Your task to perform on an android device: see sites visited before in the chrome app Image 0: 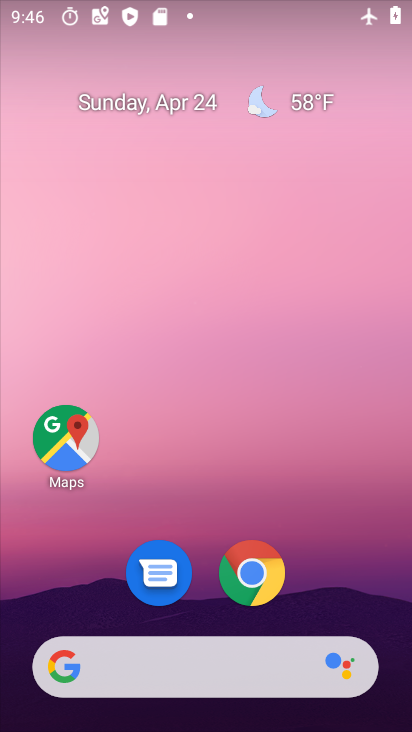
Step 0: drag from (308, 565) to (278, 169)
Your task to perform on an android device: see sites visited before in the chrome app Image 1: 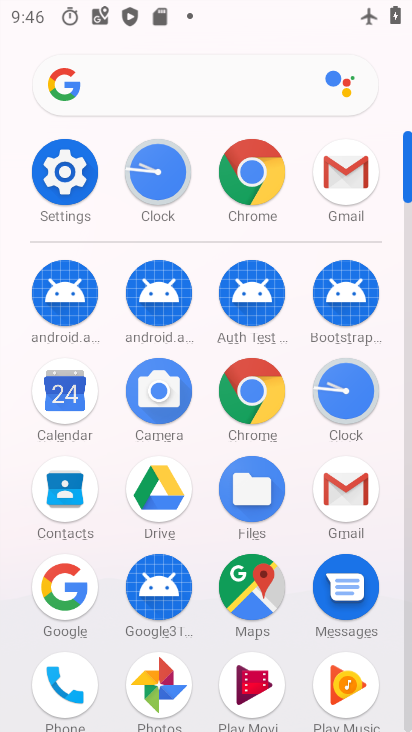
Step 1: click (247, 387)
Your task to perform on an android device: see sites visited before in the chrome app Image 2: 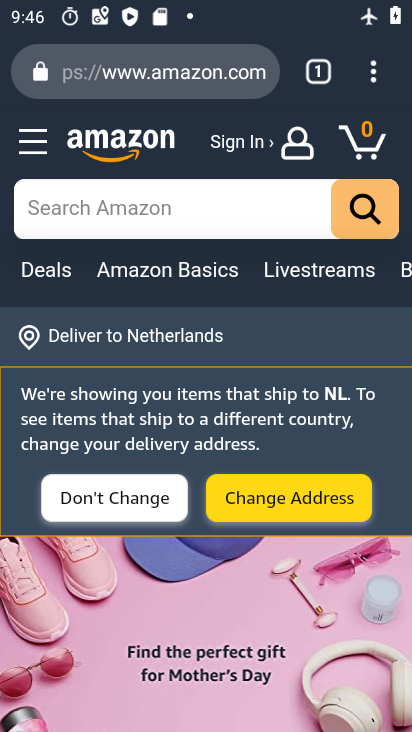
Step 2: click (376, 66)
Your task to perform on an android device: see sites visited before in the chrome app Image 3: 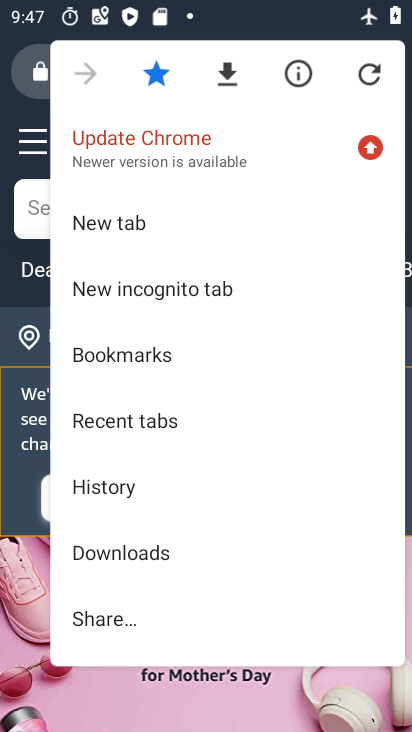
Step 3: drag from (116, 621) to (162, 243)
Your task to perform on an android device: see sites visited before in the chrome app Image 4: 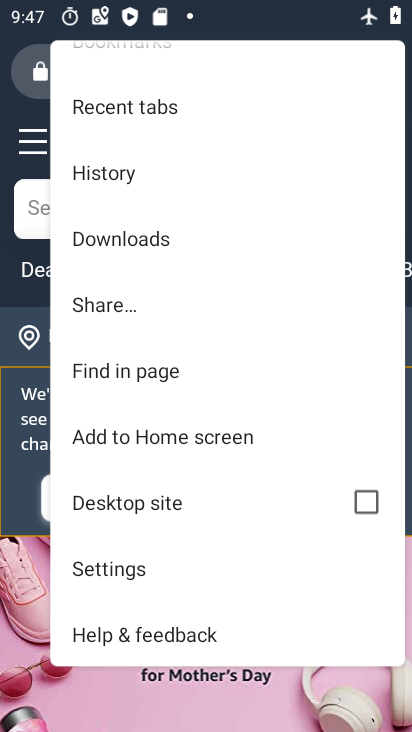
Step 4: click (136, 162)
Your task to perform on an android device: see sites visited before in the chrome app Image 5: 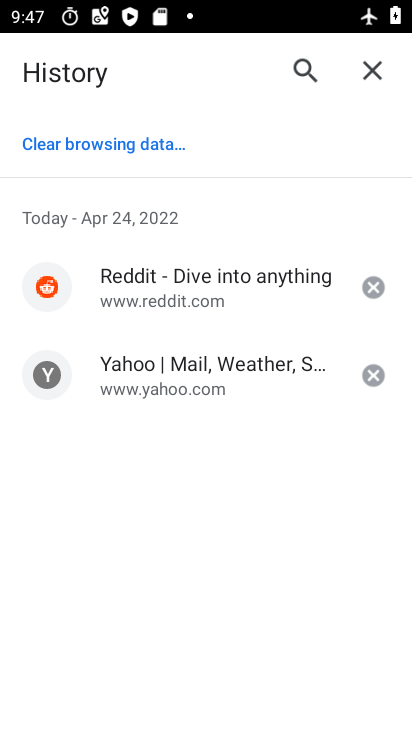
Step 5: task complete